Your task to perform on an android device: Open the calendar app, open the side menu, and click the "Day" option Image 0: 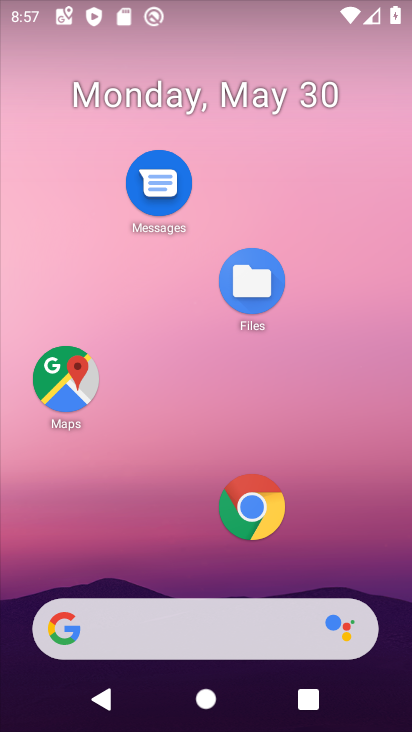
Step 0: drag from (167, 498) to (242, 69)
Your task to perform on an android device: Open the calendar app, open the side menu, and click the "Day" option Image 1: 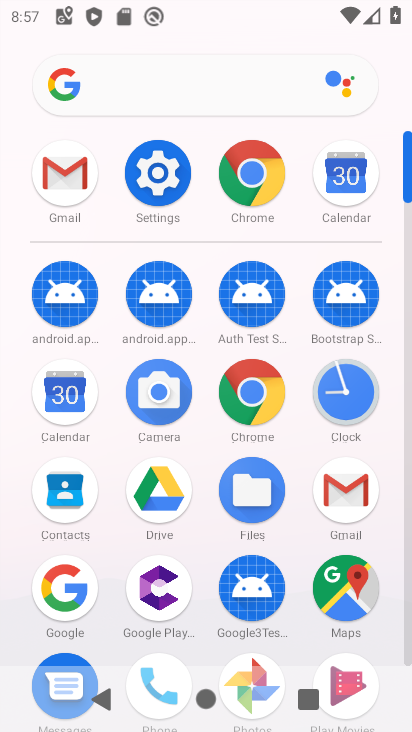
Step 1: click (44, 390)
Your task to perform on an android device: Open the calendar app, open the side menu, and click the "Day" option Image 2: 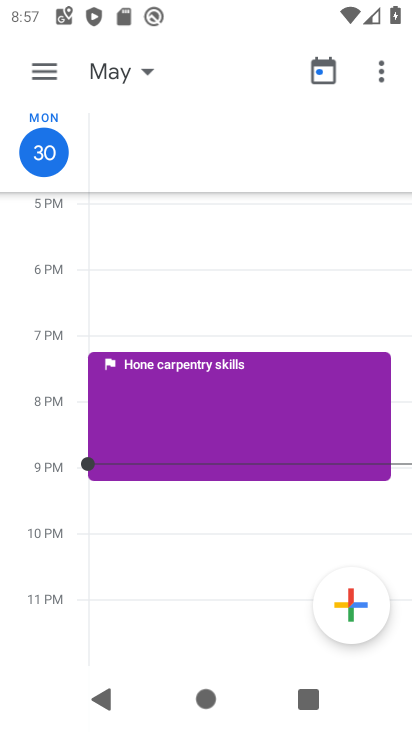
Step 2: click (38, 61)
Your task to perform on an android device: Open the calendar app, open the side menu, and click the "Day" option Image 3: 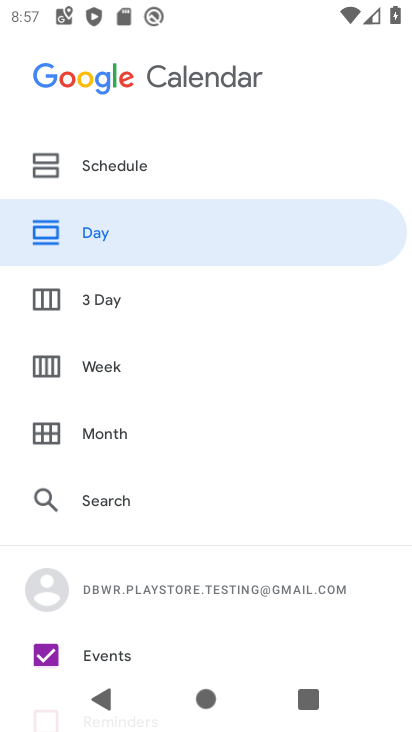
Step 3: click (211, 242)
Your task to perform on an android device: Open the calendar app, open the side menu, and click the "Day" option Image 4: 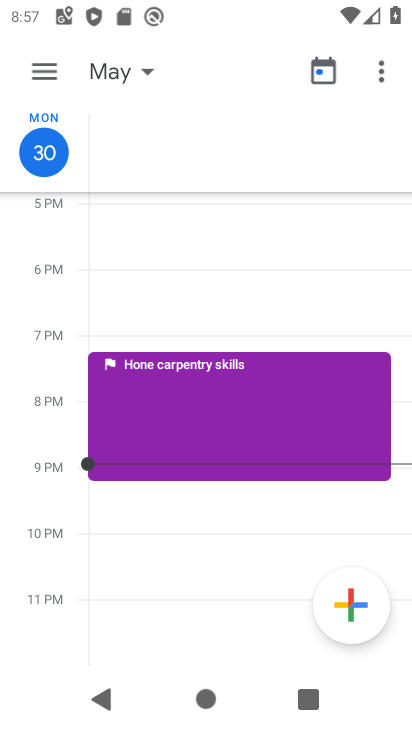
Step 4: task complete